Your task to perform on an android device: check google app version Image 0: 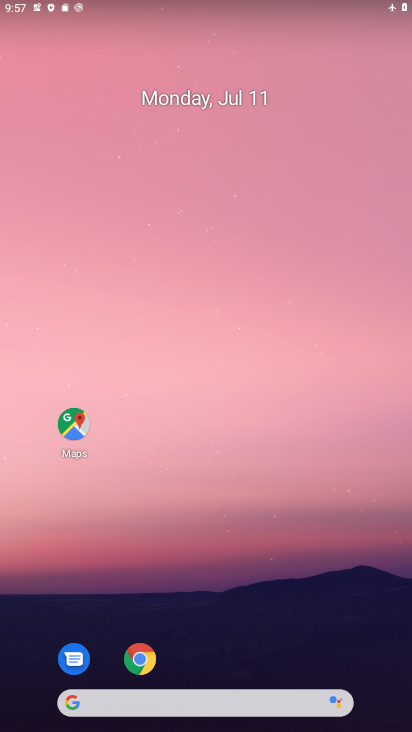
Step 0: drag from (211, 681) to (211, 121)
Your task to perform on an android device: check google app version Image 1: 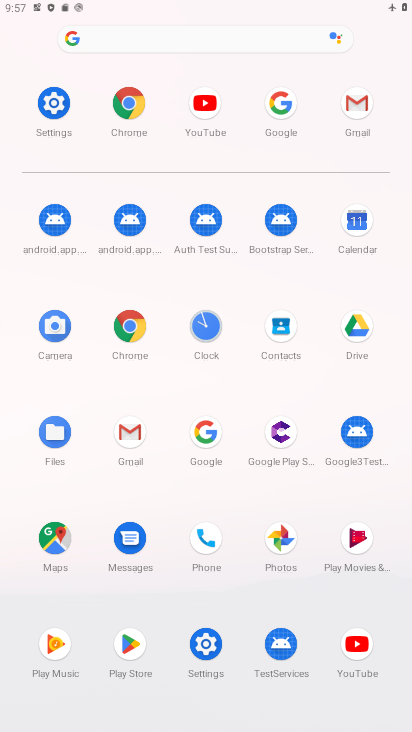
Step 1: click (209, 434)
Your task to perform on an android device: check google app version Image 2: 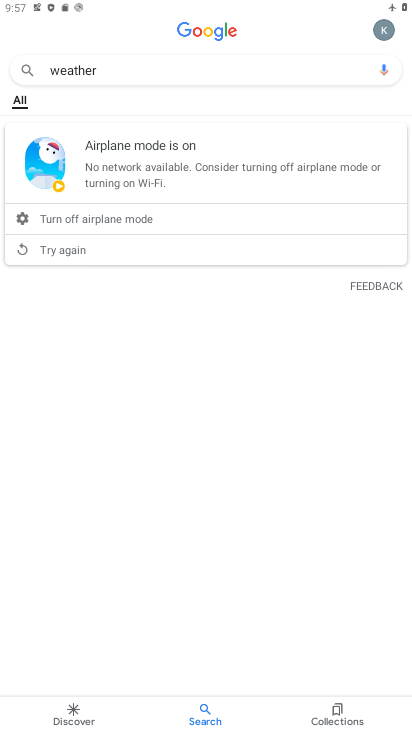
Step 2: click (382, 32)
Your task to perform on an android device: check google app version Image 3: 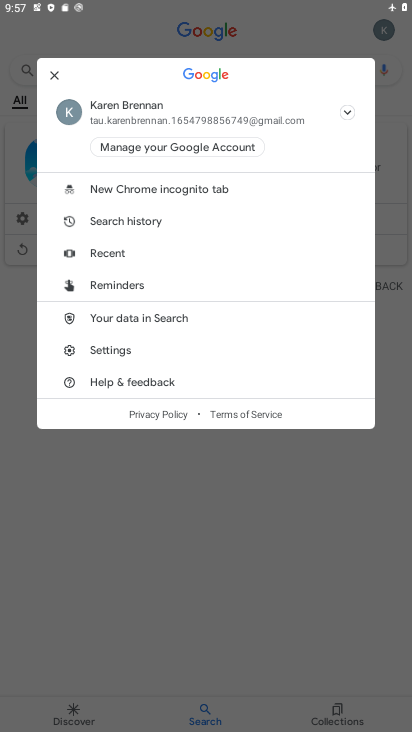
Step 3: click (107, 350)
Your task to perform on an android device: check google app version Image 4: 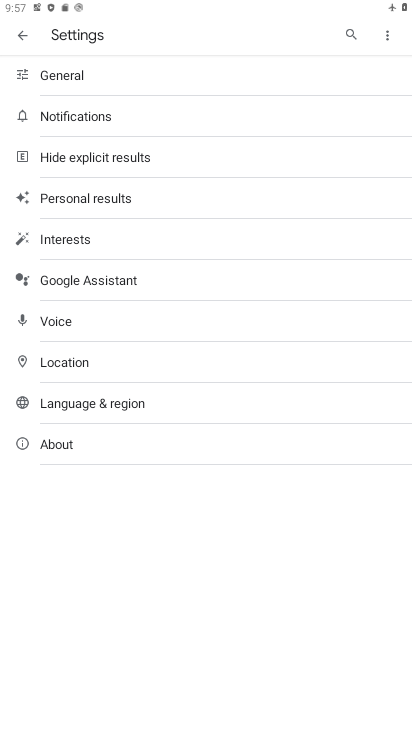
Step 4: click (56, 445)
Your task to perform on an android device: check google app version Image 5: 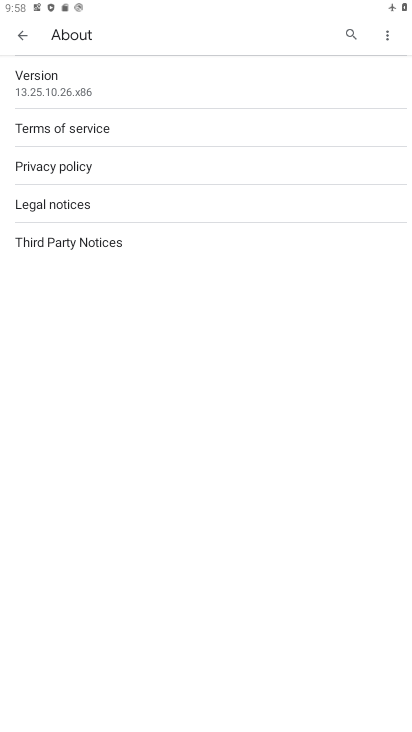
Step 5: task complete